Your task to perform on an android device: turn on the 12-hour format for clock Image 0: 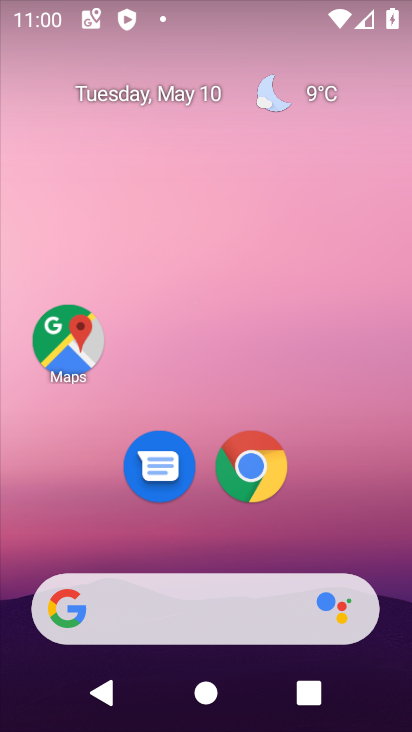
Step 0: drag from (312, 533) to (309, 16)
Your task to perform on an android device: turn on the 12-hour format for clock Image 1: 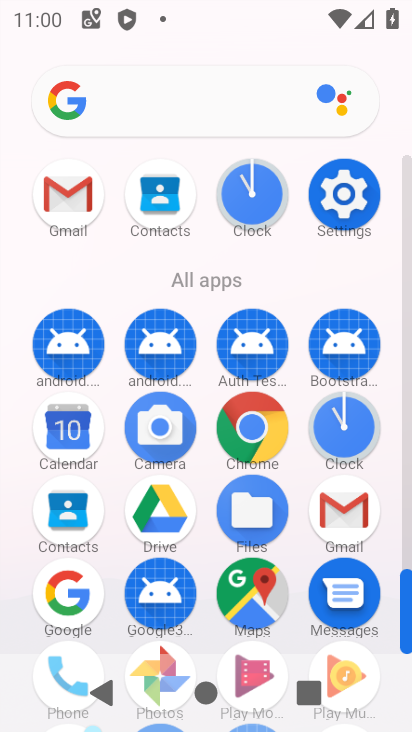
Step 1: click (347, 432)
Your task to perform on an android device: turn on the 12-hour format for clock Image 2: 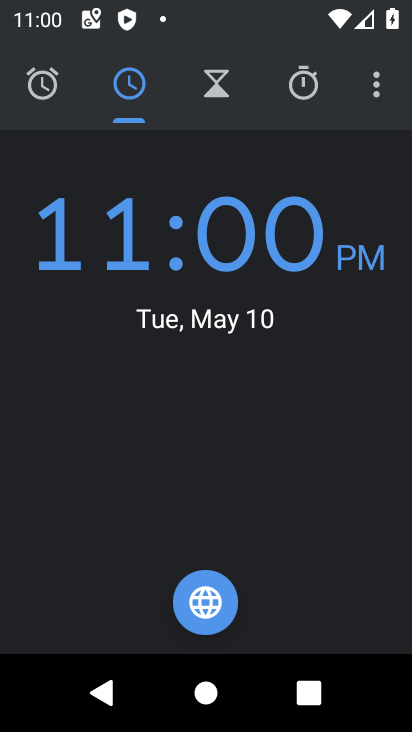
Step 2: click (376, 92)
Your task to perform on an android device: turn on the 12-hour format for clock Image 3: 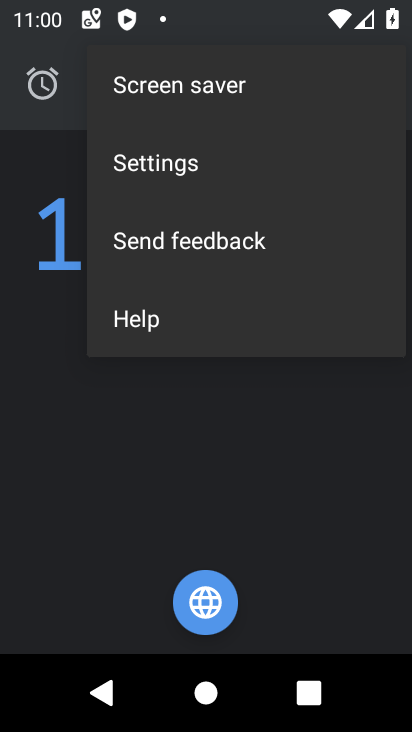
Step 3: click (326, 157)
Your task to perform on an android device: turn on the 12-hour format for clock Image 4: 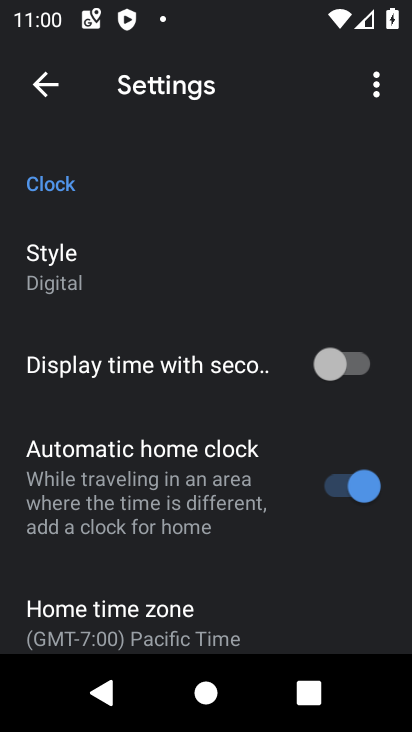
Step 4: drag from (212, 482) to (212, 262)
Your task to perform on an android device: turn on the 12-hour format for clock Image 5: 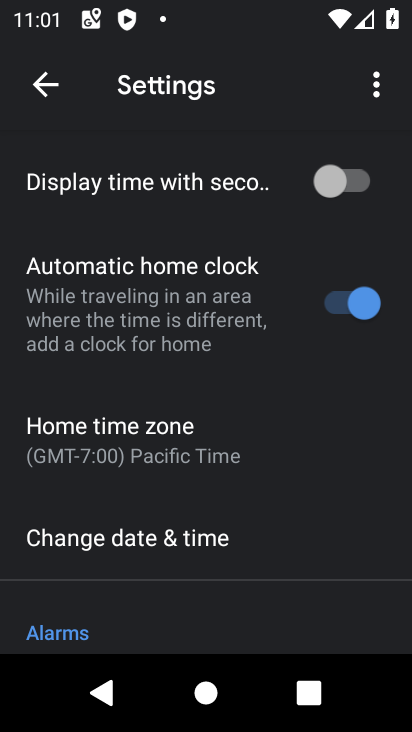
Step 5: click (226, 542)
Your task to perform on an android device: turn on the 12-hour format for clock Image 6: 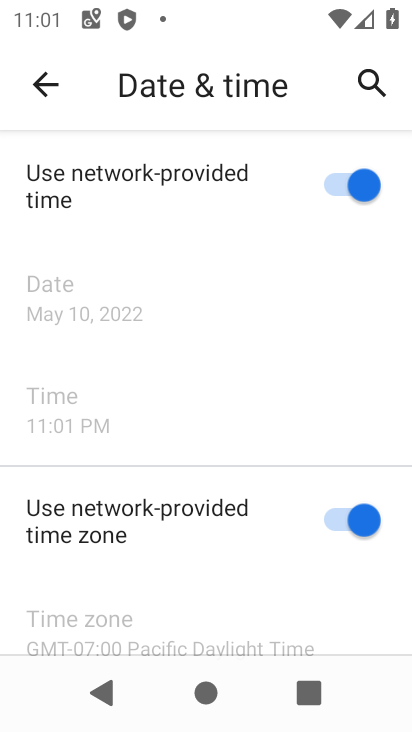
Step 6: task complete